Your task to perform on an android device: change the clock display to show seconds Image 0: 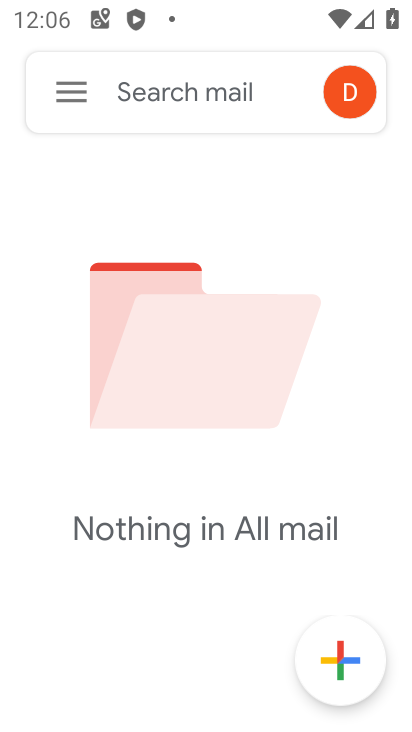
Step 0: press home button
Your task to perform on an android device: change the clock display to show seconds Image 1: 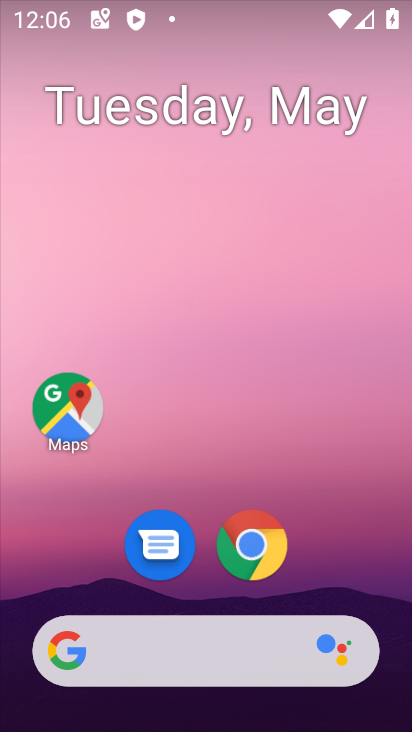
Step 1: drag from (214, 592) to (188, 2)
Your task to perform on an android device: change the clock display to show seconds Image 2: 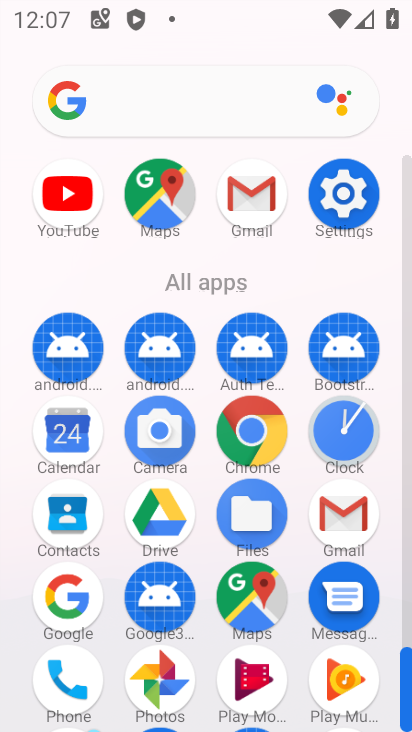
Step 2: click (348, 441)
Your task to perform on an android device: change the clock display to show seconds Image 3: 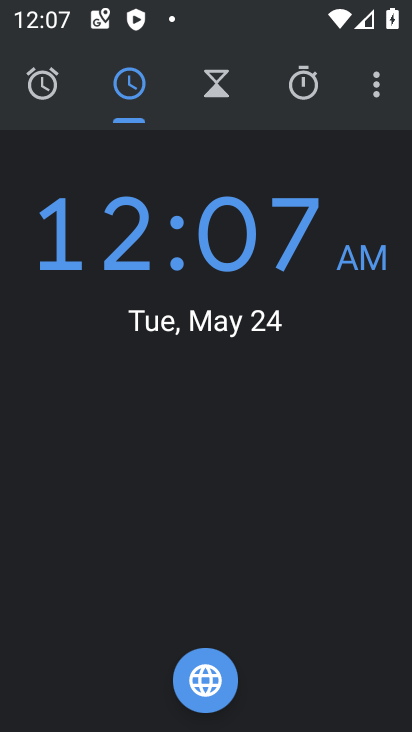
Step 3: click (391, 85)
Your task to perform on an android device: change the clock display to show seconds Image 4: 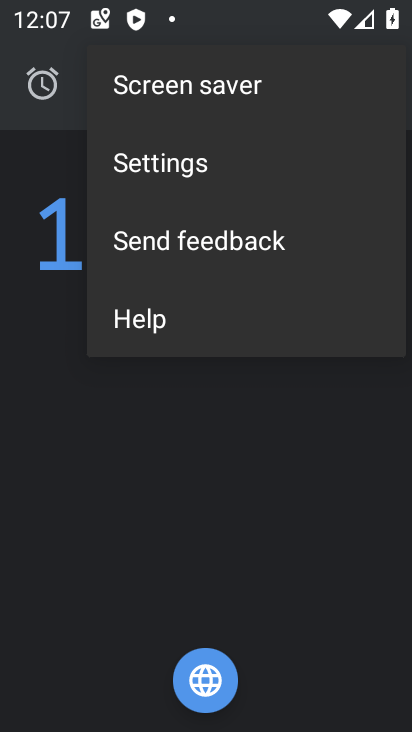
Step 4: click (213, 157)
Your task to perform on an android device: change the clock display to show seconds Image 5: 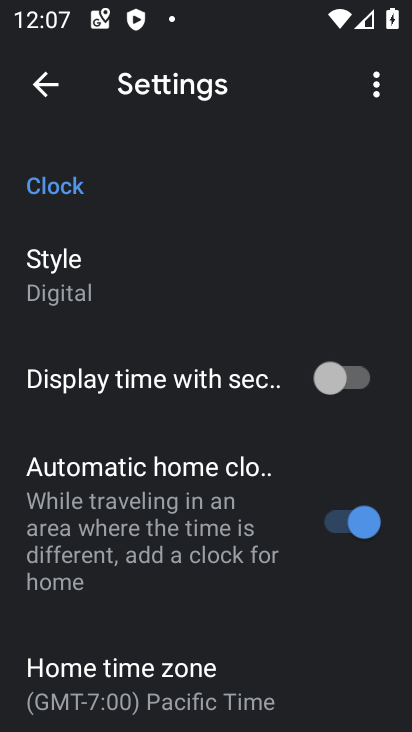
Step 5: click (361, 374)
Your task to perform on an android device: change the clock display to show seconds Image 6: 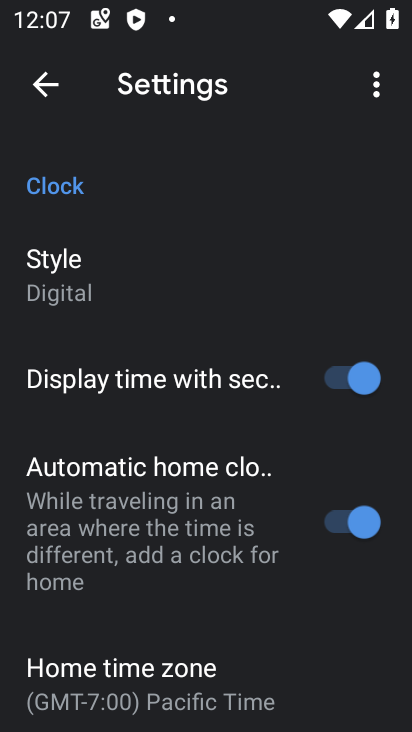
Step 6: task complete